Your task to perform on an android device: change timer sound Image 0: 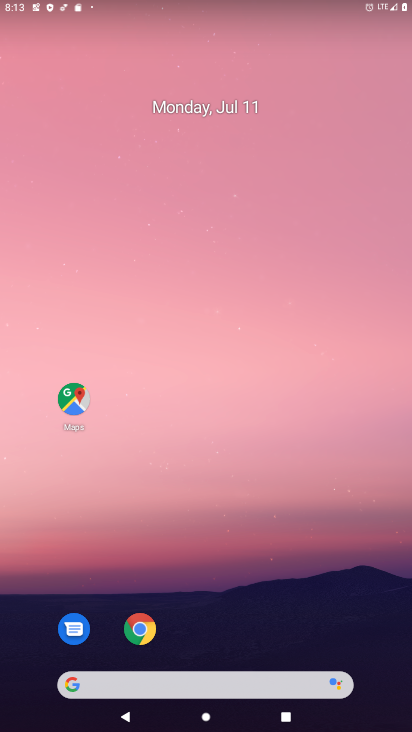
Step 0: drag from (231, 638) to (299, 45)
Your task to perform on an android device: change timer sound Image 1: 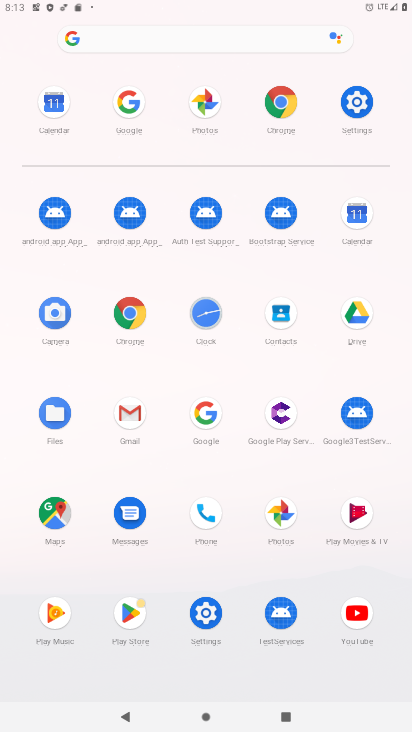
Step 1: click (203, 320)
Your task to perform on an android device: change timer sound Image 2: 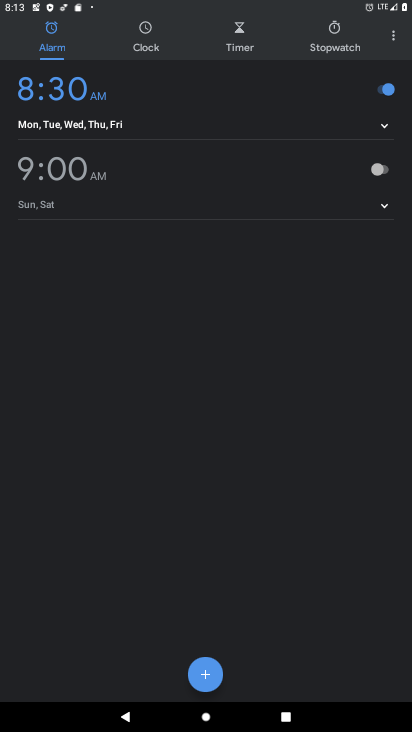
Step 2: click (394, 33)
Your task to perform on an android device: change timer sound Image 3: 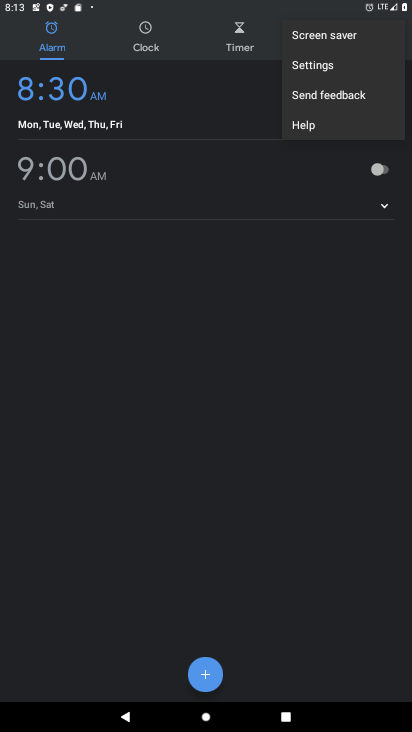
Step 3: click (326, 66)
Your task to perform on an android device: change timer sound Image 4: 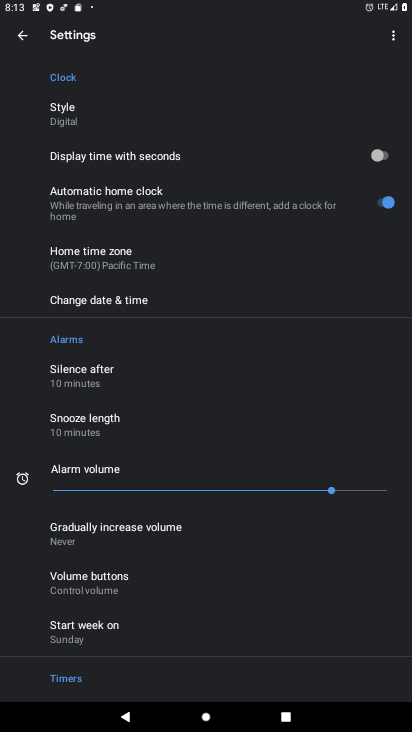
Step 4: drag from (188, 543) to (181, 147)
Your task to perform on an android device: change timer sound Image 5: 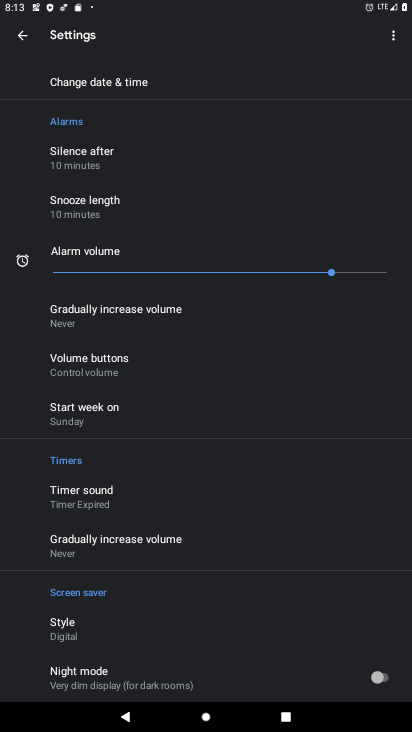
Step 5: click (98, 492)
Your task to perform on an android device: change timer sound Image 6: 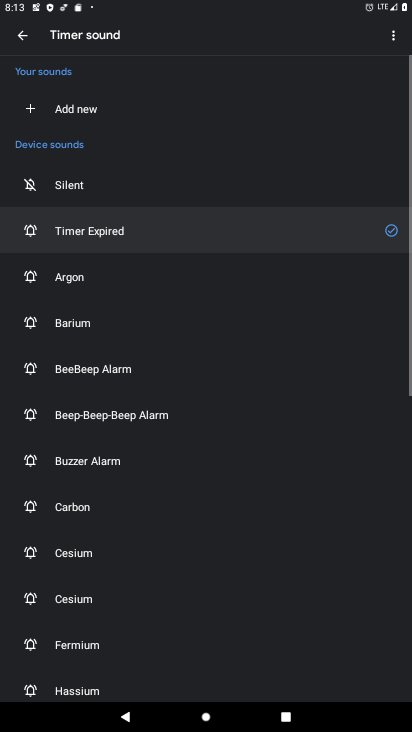
Step 6: click (95, 287)
Your task to perform on an android device: change timer sound Image 7: 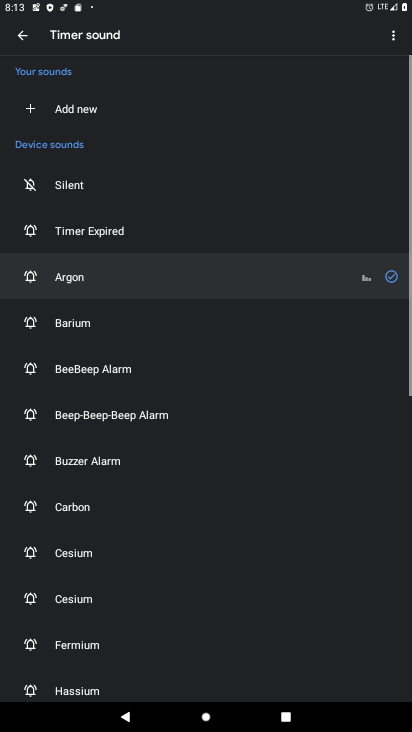
Step 7: task complete